Your task to perform on an android device: change text size in settings app Image 0: 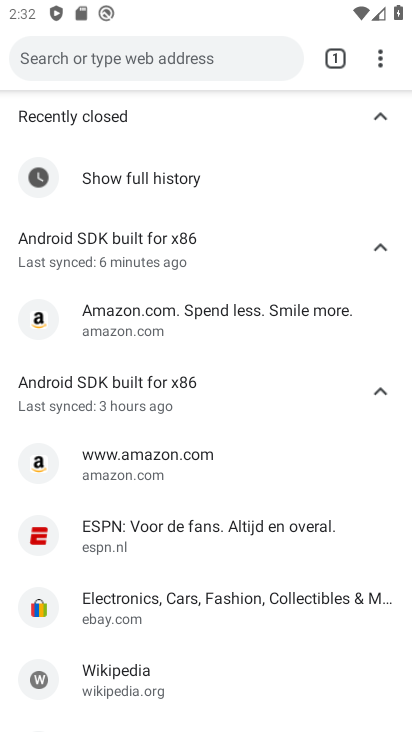
Step 0: press home button
Your task to perform on an android device: change text size in settings app Image 1: 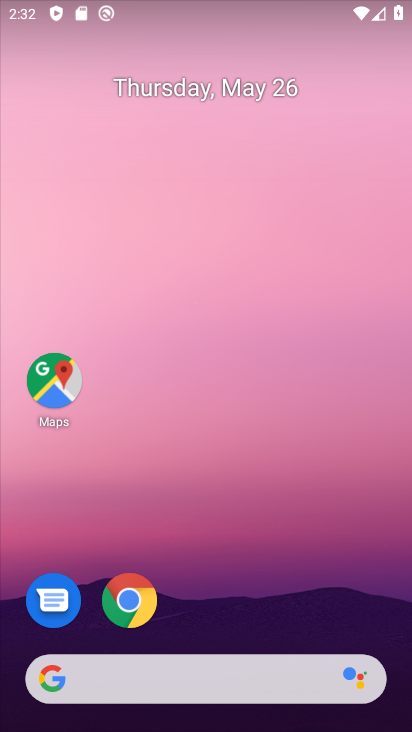
Step 1: drag from (265, 605) to (349, 164)
Your task to perform on an android device: change text size in settings app Image 2: 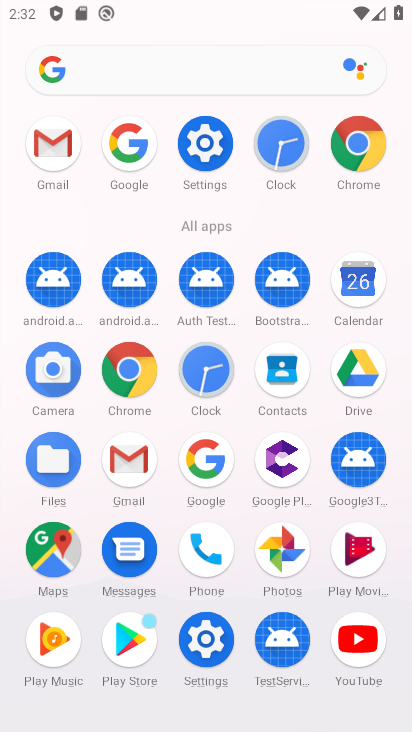
Step 2: click (214, 150)
Your task to perform on an android device: change text size in settings app Image 3: 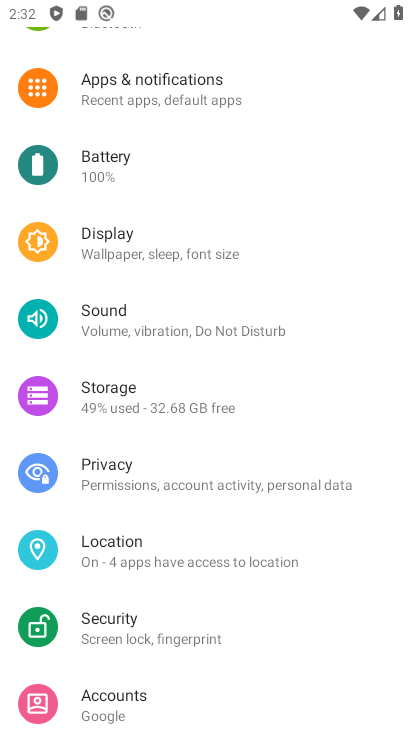
Step 3: click (202, 254)
Your task to perform on an android device: change text size in settings app Image 4: 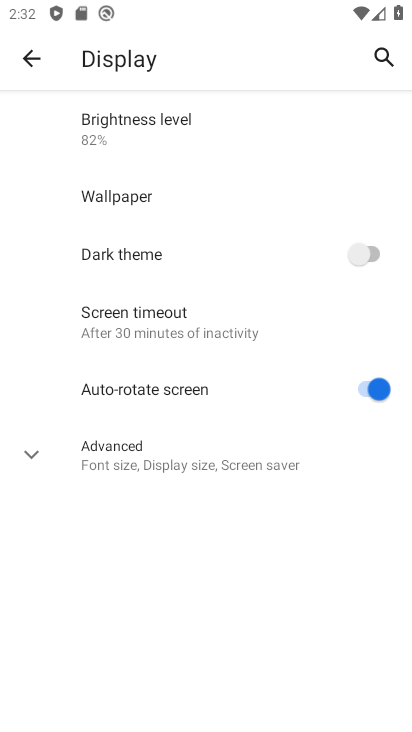
Step 4: click (172, 448)
Your task to perform on an android device: change text size in settings app Image 5: 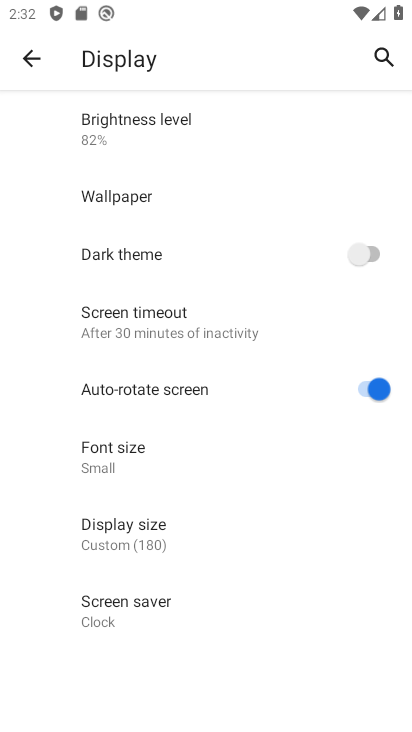
Step 5: click (123, 459)
Your task to perform on an android device: change text size in settings app Image 6: 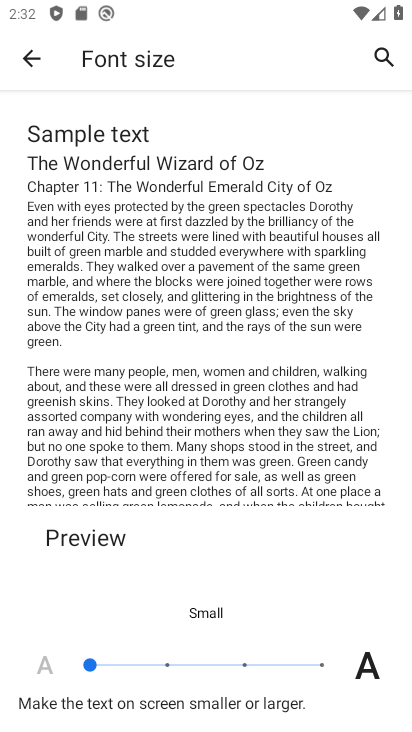
Step 6: click (172, 655)
Your task to perform on an android device: change text size in settings app Image 7: 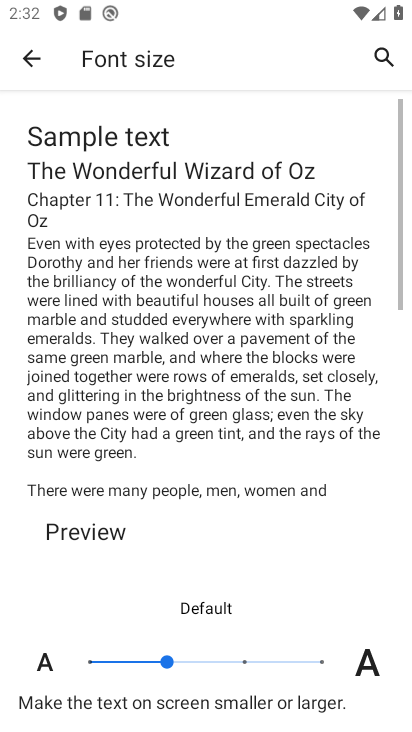
Step 7: task complete